Your task to perform on an android device: refresh tabs in the chrome app Image 0: 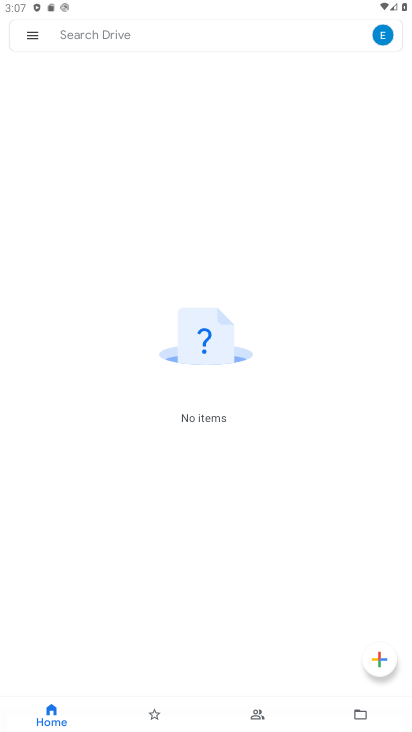
Step 0: press home button
Your task to perform on an android device: refresh tabs in the chrome app Image 1: 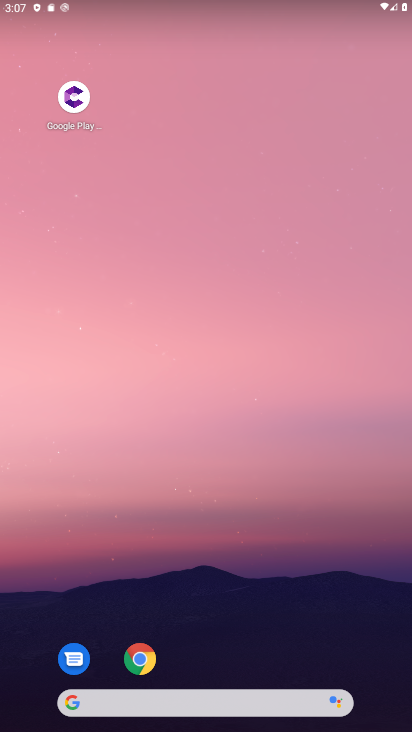
Step 1: click (131, 655)
Your task to perform on an android device: refresh tabs in the chrome app Image 2: 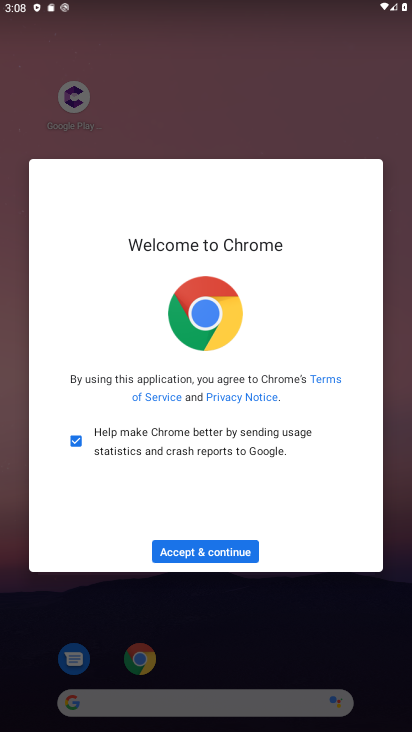
Step 2: click (179, 549)
Your task to perform on an android device: refresh tabs in the chrome app Image 3: 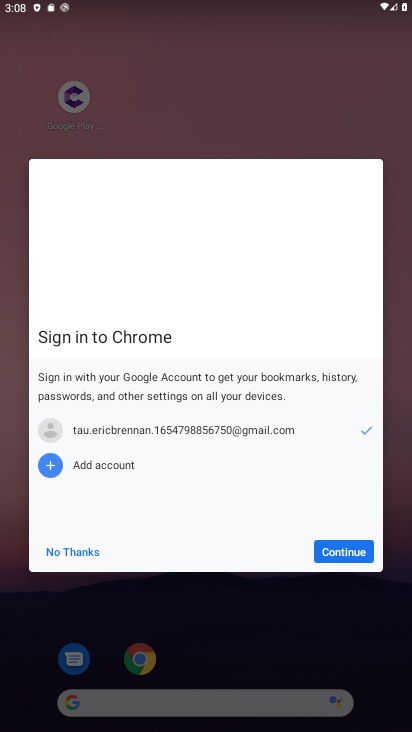
Step 3: click (329, 541)
Your task to perform on an android device: refresh tabs in the chrome app Image 4: 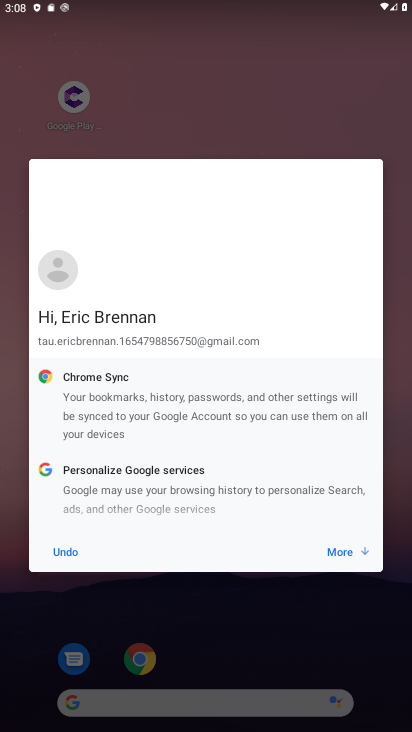
Step 4: click (363, 544)
Your task to perform on an android device: refresh tabs in the chrome app Image 5: 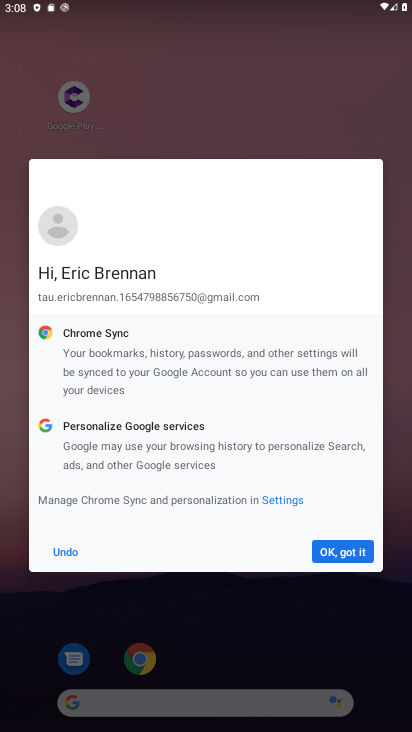
Step 5: click (340, 546)
Your task to perform on an android device: refresh tabs in the chrome app Image 6: 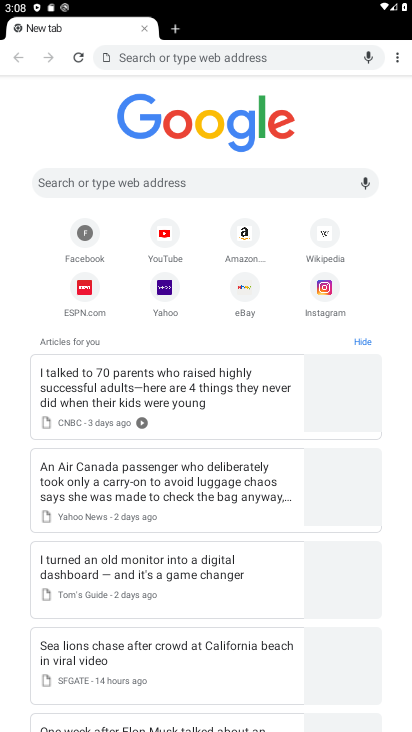
Step 6: click (401, 52)
Your task to perform on an android device: refresh tabs in the chrome app Image 7: 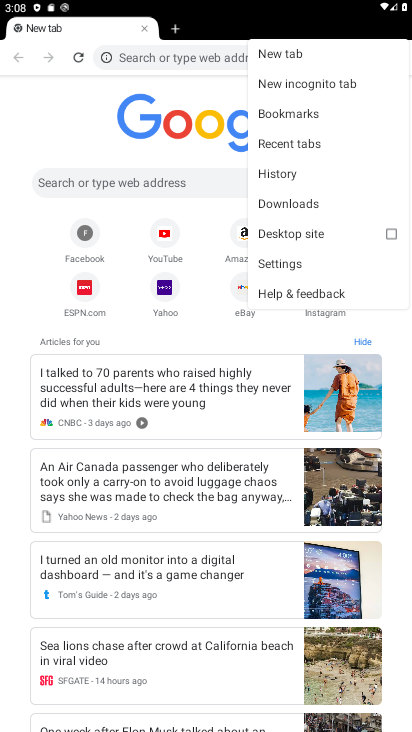
Step 7: click (78, 58)
Your task to perform on an android device: refresh tabs in the chrome app Image 8: 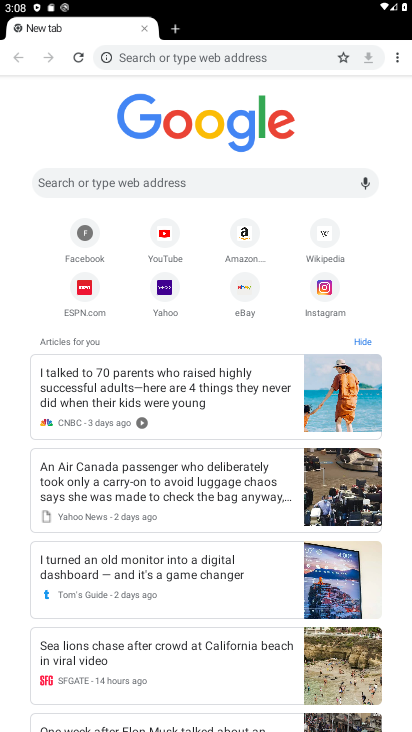
Step 8: click (78, 58)
Your task to perform on an android device: refresh tabs in the chrome app Image 9: 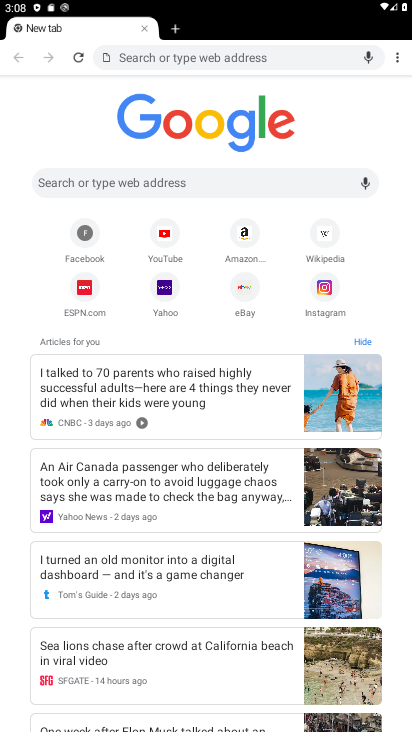
Step 9: task complete